Your task to perform on an android device: Open Google Chrome and click the shortcut for Amazon.com Image 0: 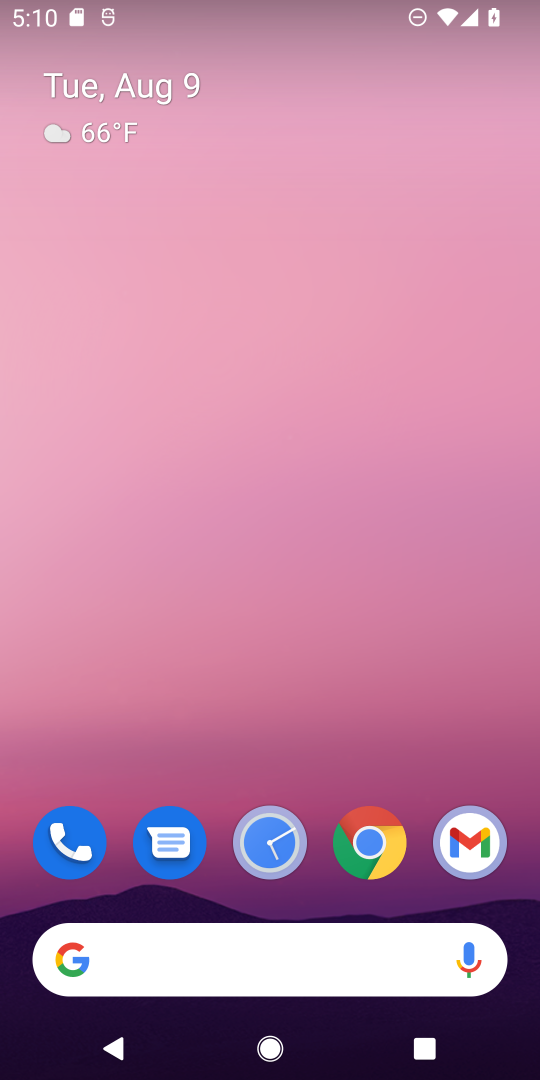
Step 0: click (229, 942)
Your task to perform on an android device: Open Google Chrome and click the shortcut for Amazon.com Image 1: 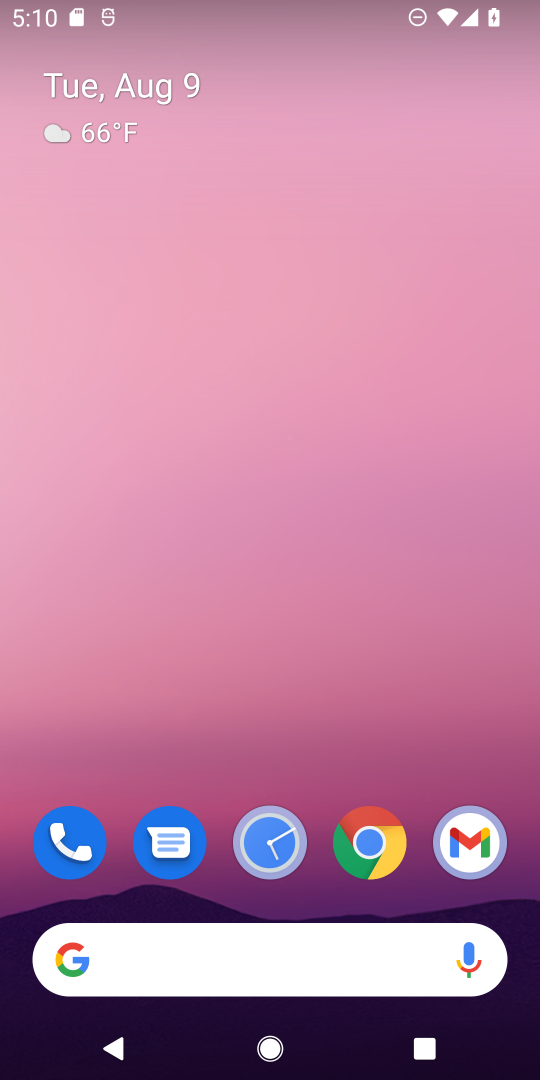
Step 1: drag from (200, 984) to (315, 11)
Your task to perform on an android device: Open Google Chrome and click the shortcut for Amazon.com Image 2: 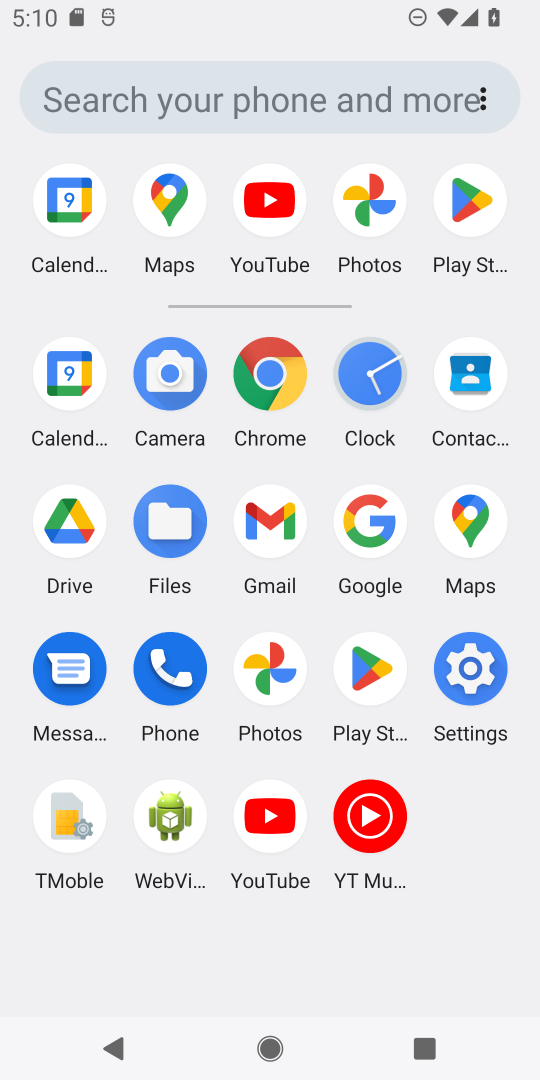
Step 2: click (285, 391)
Your task to perform on an android device: Open Google Chrome and click the shortcut for Amazon.com Image 3: 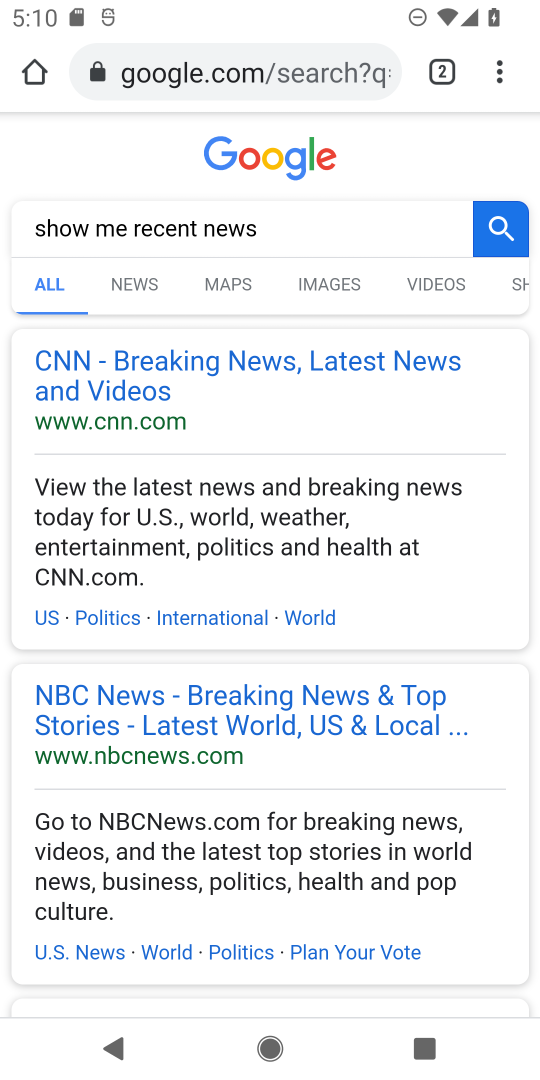
Step 3: click (494, 70)
Your task to perform on an android device: Open Google Chrome and click the shortcut for Amazon.com Image 4: 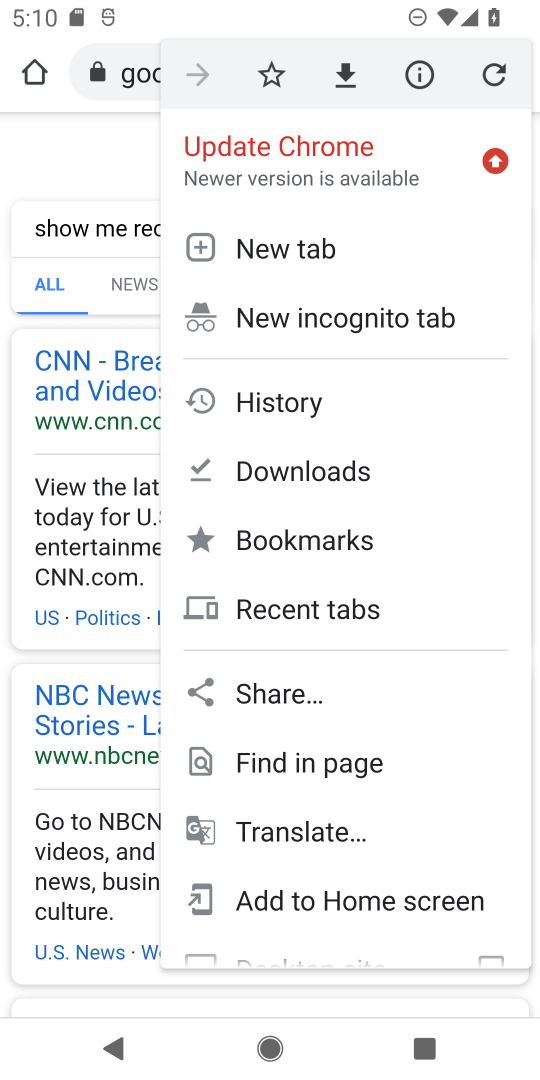
Step 4: click (261, 259)
Your task to perform on an android device: Open Google Chrome and click the shortcut for Amazon.com Image 5: 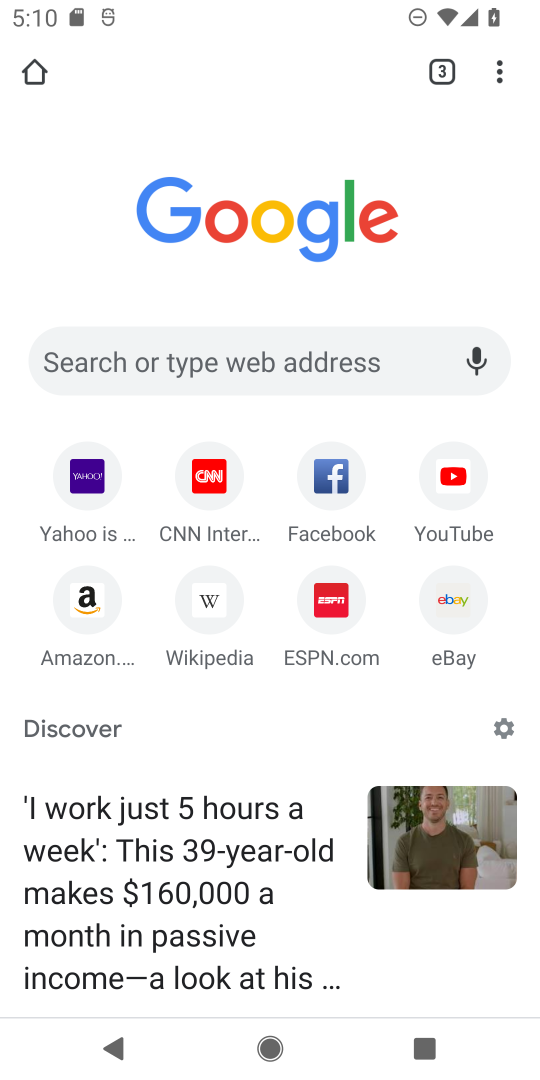
Step 5: click (77, 607)
Your task to perform on an android device: Open Google Chrome and click the shortcut for Amazon.com Image 6: 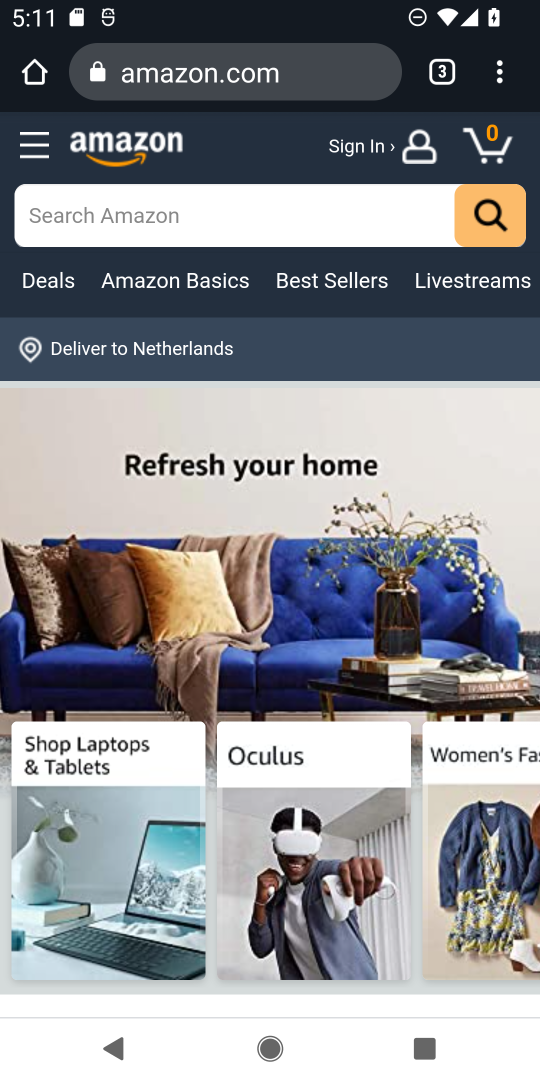
Step 6: click (504, 83)
Your task to perform on an android device: Open Google Chrome and click the shortcut for Amazon.com Image 7: 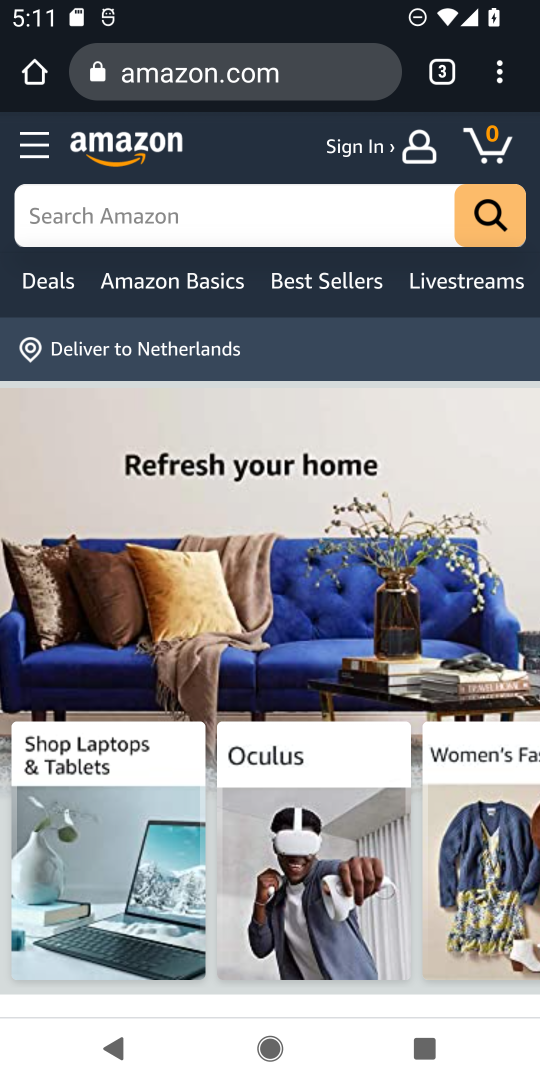
Step 7: click (504, 83)
Your task to perform on an android device: Open Google Chrome and click the shortcut for Amazon.com Image 8: 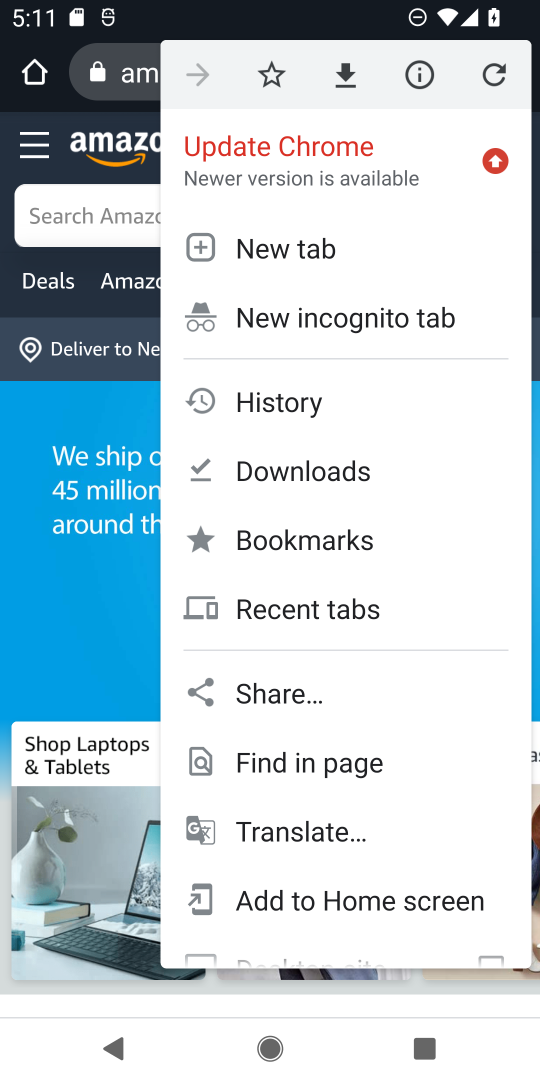
Step 8: click (328, 906)
Your task to perform on an android device: Open Google Chrome and click the shortcut for Amazon.com Image 9: 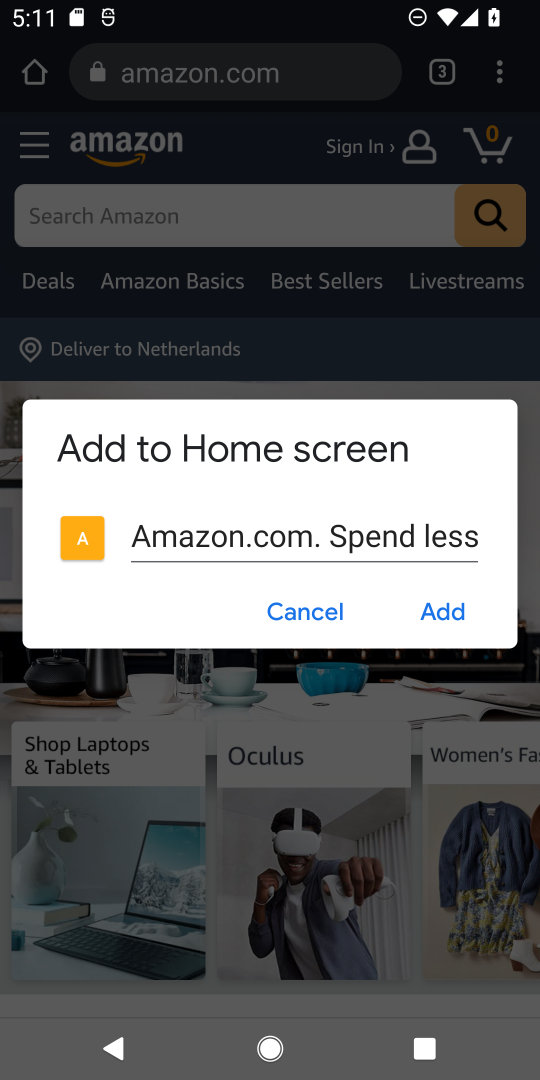
Step 9: click (328, 906)
Your task to perform on an android device: Open Google Chrome and click the shortcut for Amazon.com Image 10: 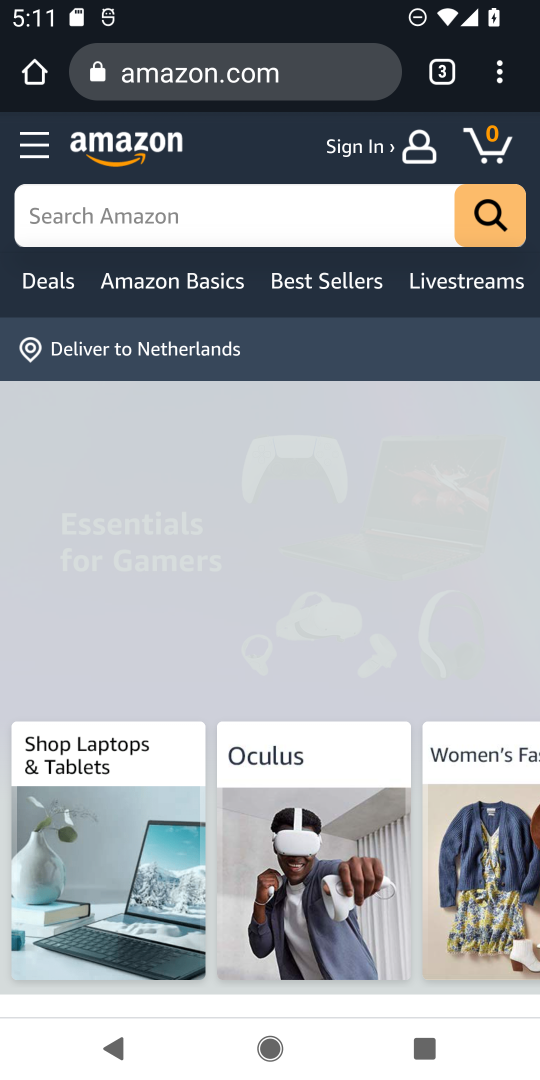
Step 10: click (424, 612)
Your task to perform on an android device: Open Google Chrome and click the shortcut for Amazon.com Image 11: 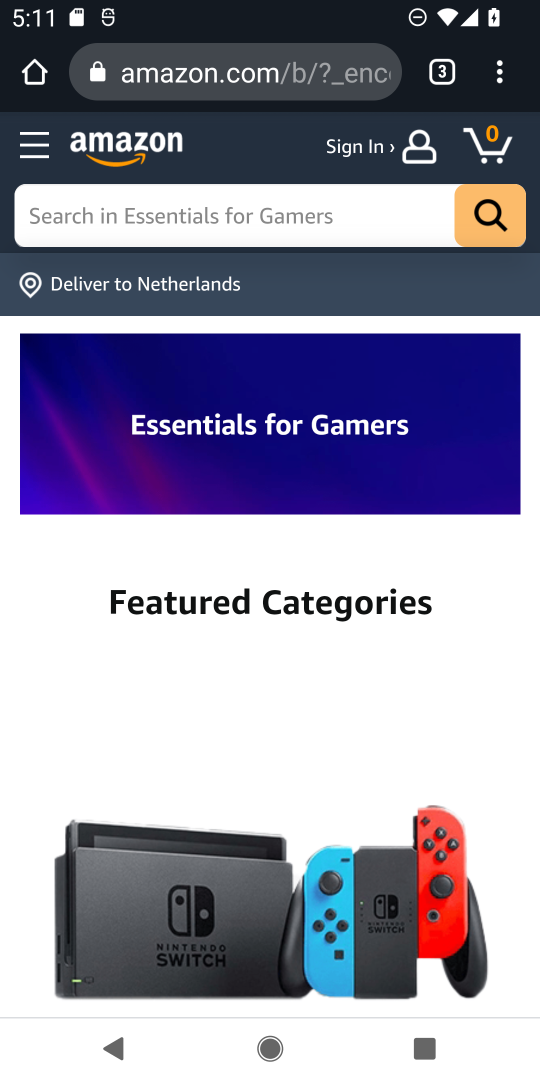
Step 11: task complete